Your task to perform on an android device: change the clock style Image 0: 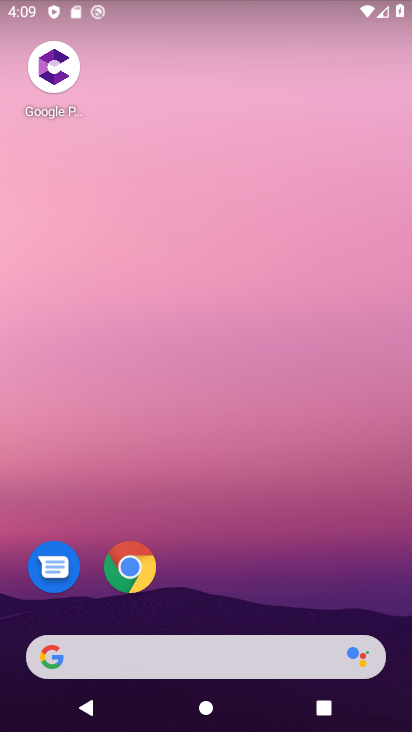
Step 0: drag from (182, 589) to (285, 129)
Your task to perform on an android device: change the clock style Image 1: 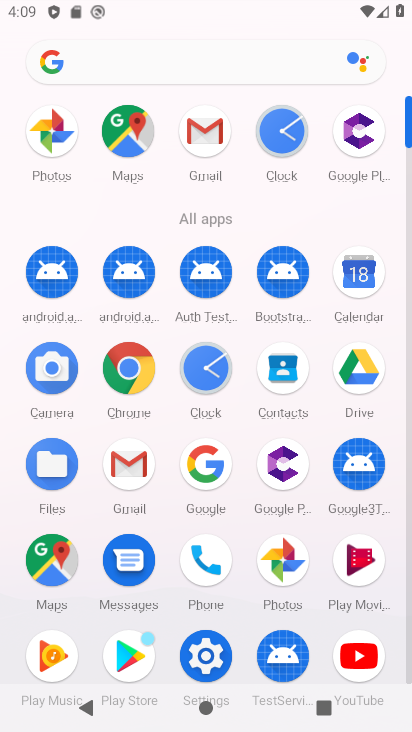
Step 1: click (274, 134)
Your task to perform on an android device: change the clock style Image 2: 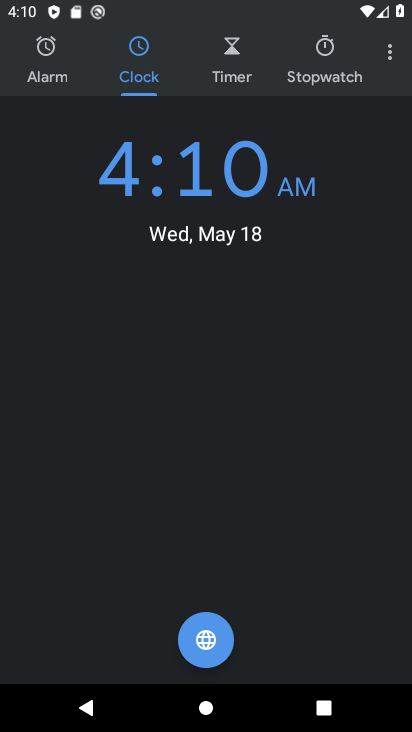
Step 2: click (390, 56)
Your task to perform on an android device: change the clock style Image 3: 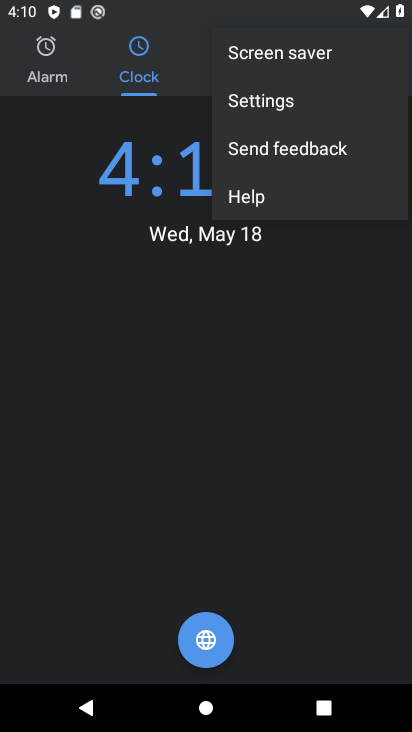
Step 3: click (270, 90)
Your task to perform on an android device: change the clock style Image 4: 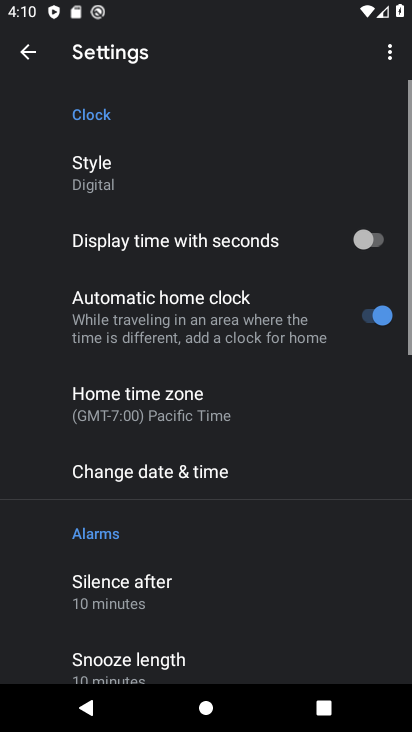
Step 4: click (92, 171)
Your task to perform on an android device: change the clock style Image 5: 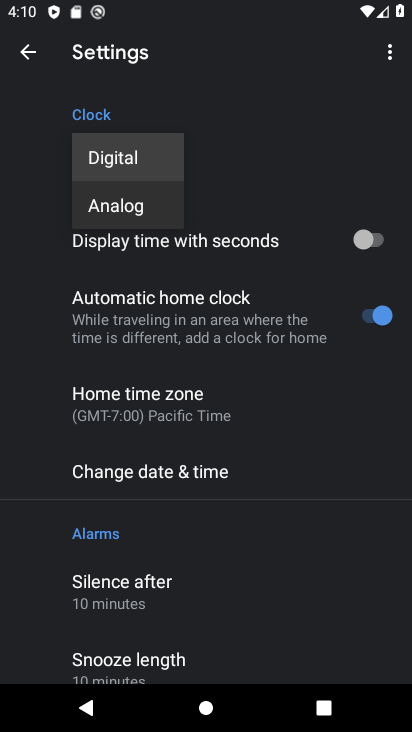
Step 5: click (109, 207)
Your task to perform on an android device: change the clock style Image 6: 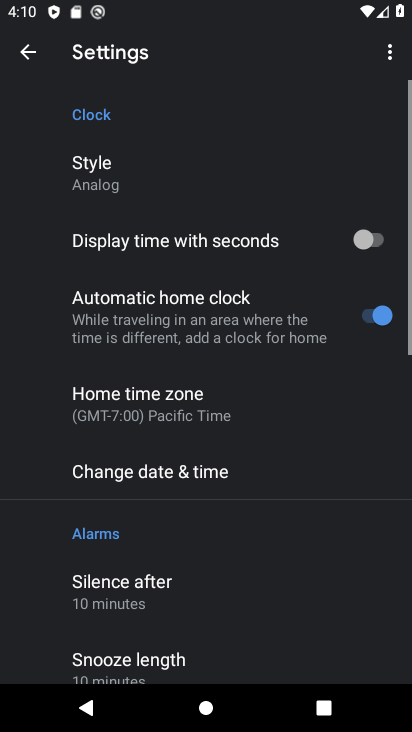
Step 6: task complete